Your task to perform on an android device: make emails show in primary in the gmail app Image 0: 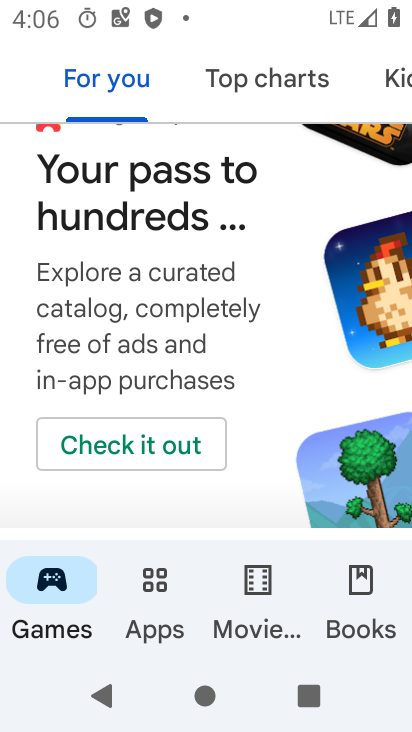
Step 0: press home button
Your task to perform on an android device: make emails show in primary in the gmail app Image 1: 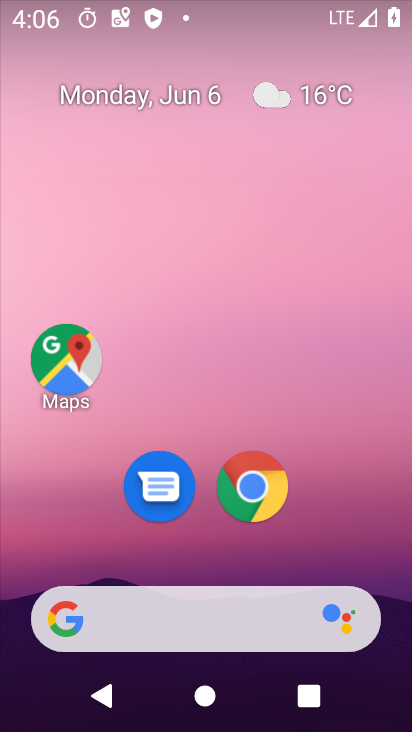
Step 1: drag from (362, 570) to (358, 149)
Your task to perform on an android device: make emails show in primary in the gmail app Image 2: 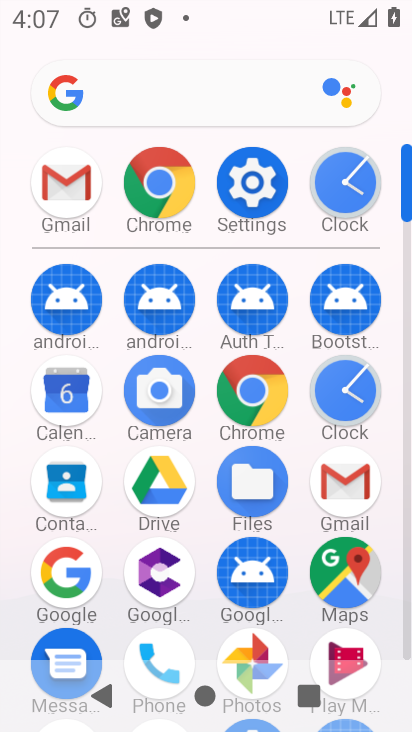
Step 2: click (82, 176)
Your task to perform on an android device: make emails show in primary in the gmail app Image 3: 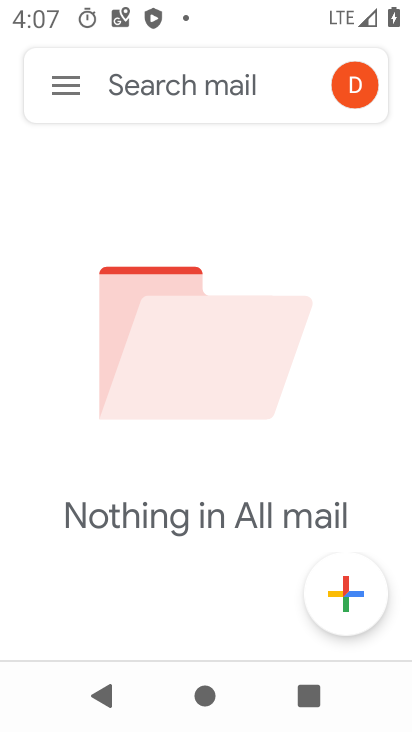
Step 3: click (57, 71)
Your task to perform on an android device: make emails show in primary in the gmail app Image 4: 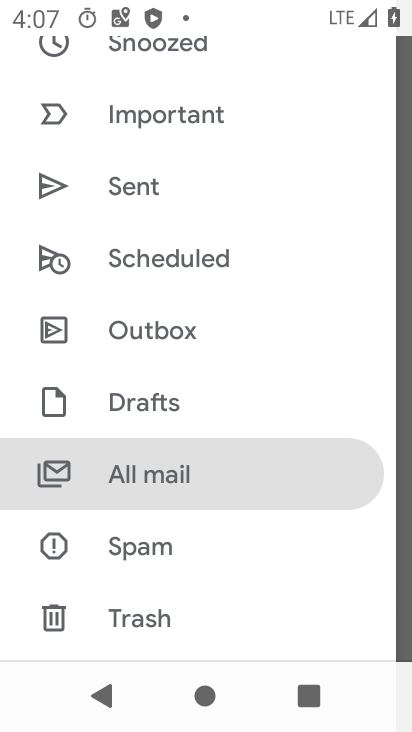
Step 4: drag from (86, 504) to (195, 79)
Your task to perform on an android device: make emails show in primary in the gmail app Image 5: 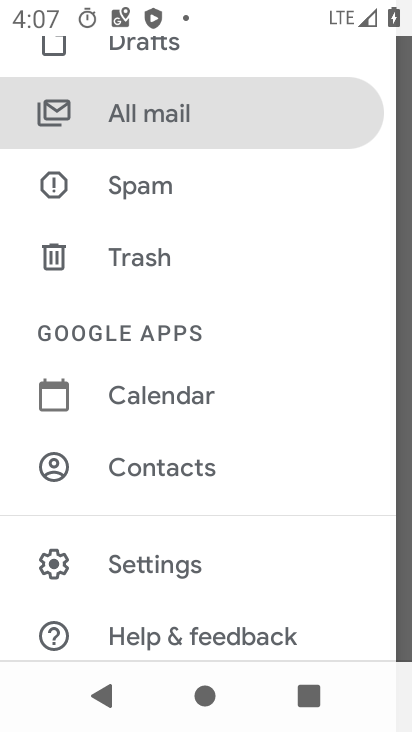
Step 5: click (158, 567)
Your task to perform on an android device: make emails show in primary in the gmail app Image 6: 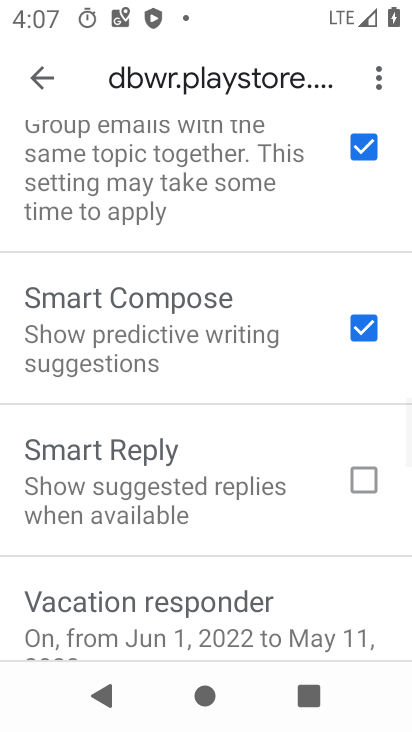
Step 6: drag from (220, 172) to (236, 601)
Your task to perform on an android device: make emails show in primary in the gmail app Image 7: 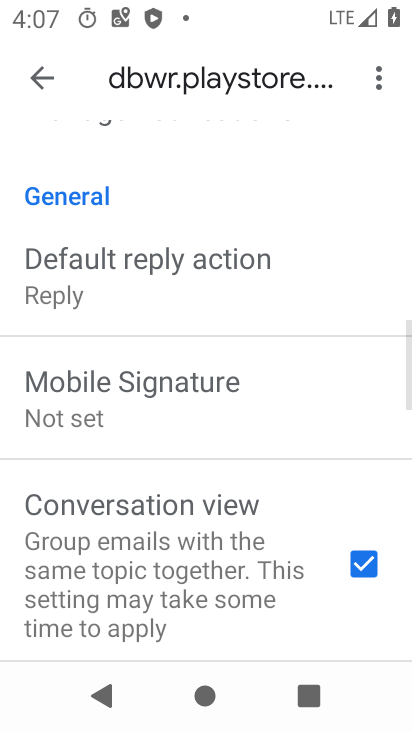
Step 7: drag from (200, 184) to (190, 613)
Your task to perform on an android device: make emails show in primary in the gmail app Image 8: 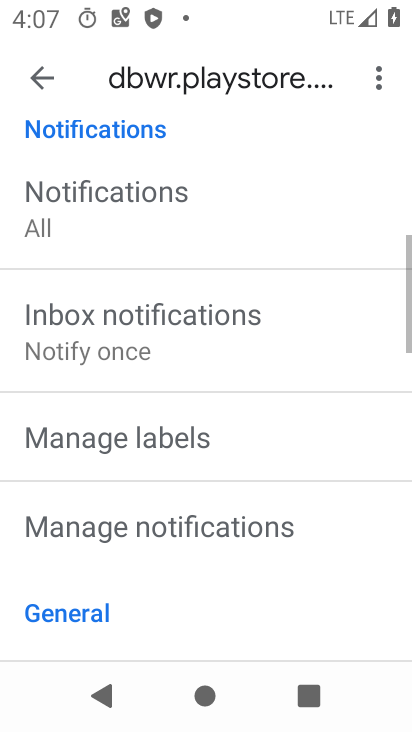
Step 8: drag from (203, 192) to (210, 555)
Your task to perform on an android device: make emails show in primary in the gmail app Image 9: 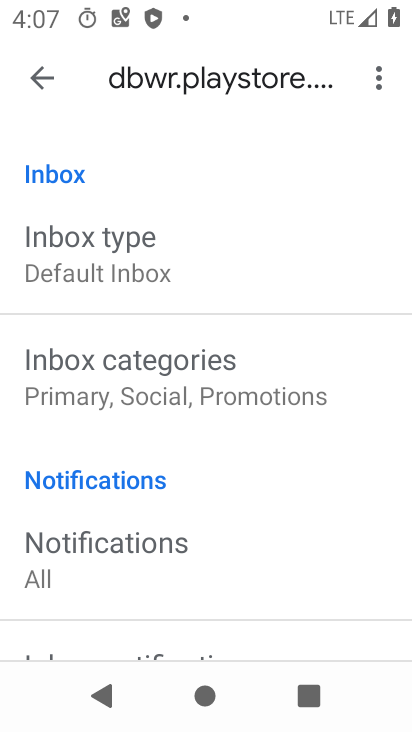
Step 9: drag from (207, 133) to (177, 511)
Your task to perform on an android device: make emails show in primary in the gmail app Image 10: 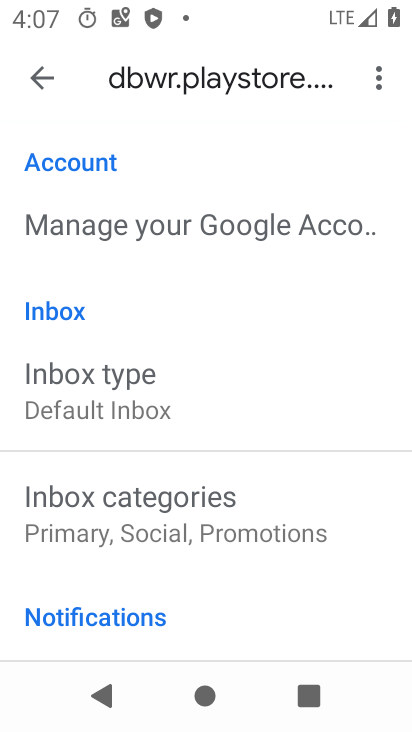
Step 10: click (170, 491)
Your task to perform on an android device: make emails show in primary in the gmail app Image 11: 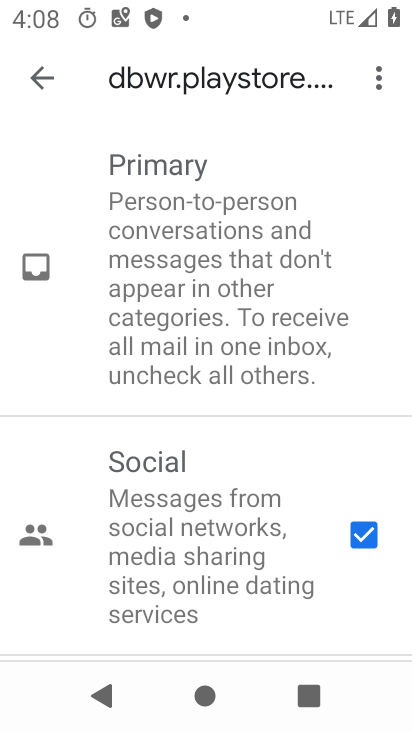
Step 11: task complete